Your task to perform on an android device: check out phone information Image 0: 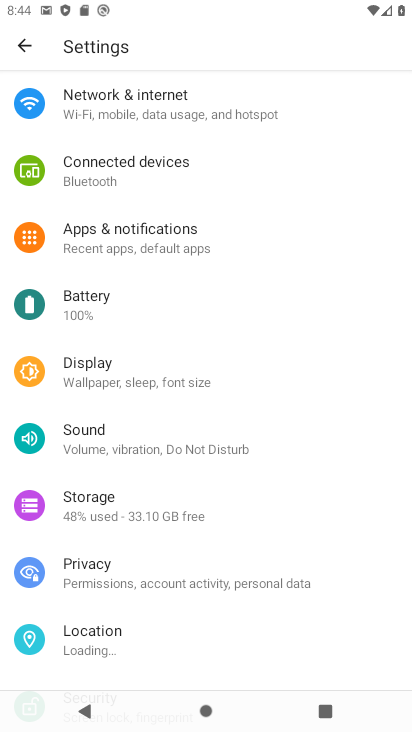
Step 0: press home button
Your task to perform on an android device: check out phone information Image 1: 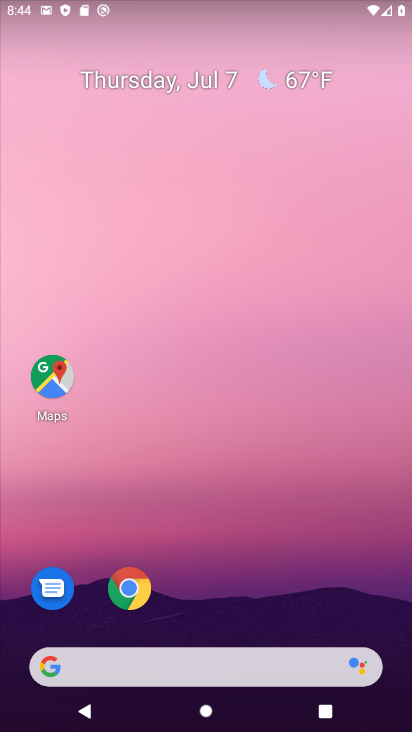
Step 1: drag from (249, 585) to (216, 35)
Your task to perform on an android device: check out phone information Image 2: 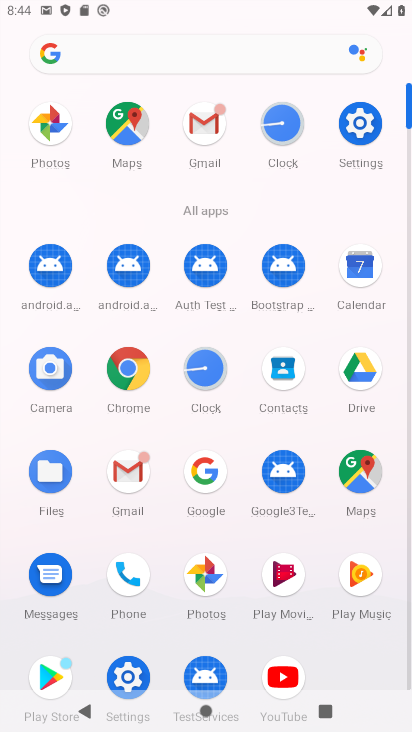
Step 2: click (361, 123)
Your task to perform on an android device: check out phone information Image 3: 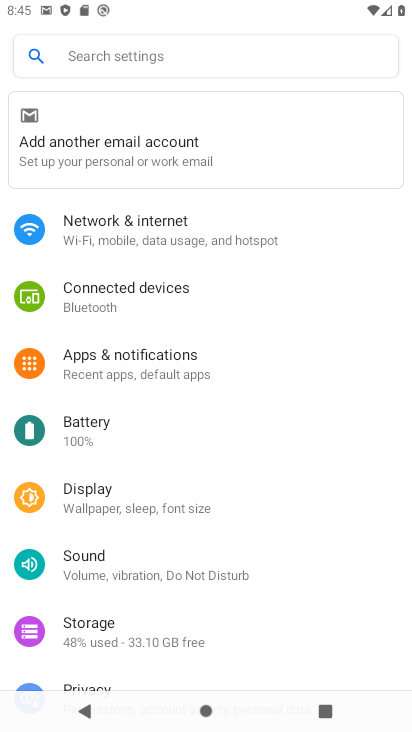
Step 3: drag from (136, 478) to (188, 390)
Your task to perform on an android device: check out phone information Image 4: 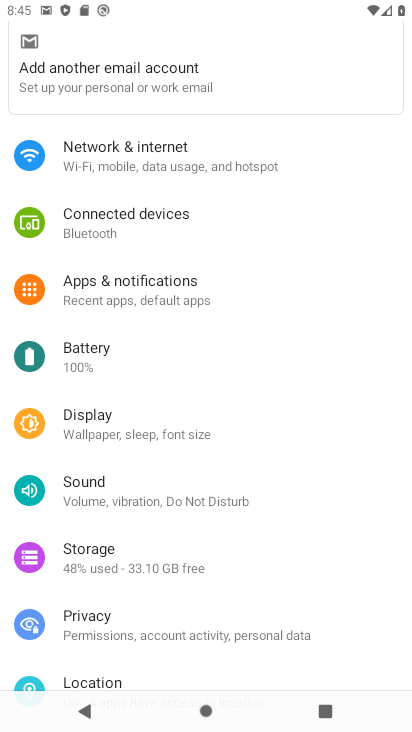
Step 4: drag from (152, 543) to (238, 429)
Your task to perform on an android device: check out phone information Image 5: 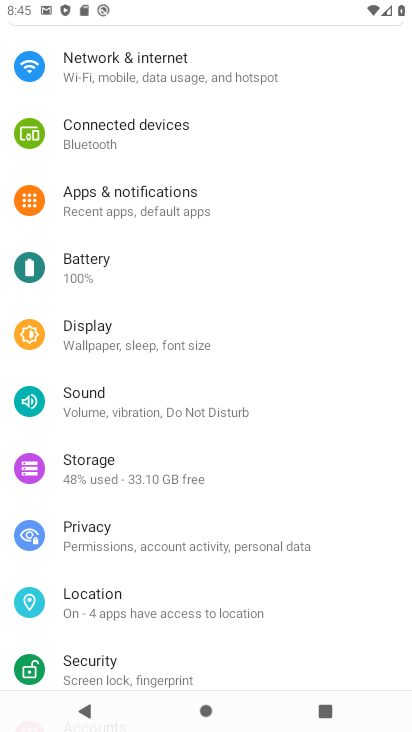
Step 5: drag from (180, 581) to (209, 483)
Your task to perform on an android device: check out phone information Image 6: 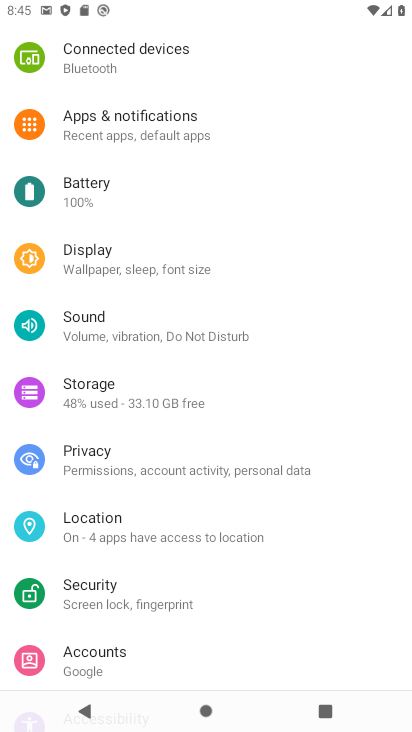
Step 6: drag from (119, 628) to (192, 525)
Your task to perform on an android device: check out phone information Image 7: 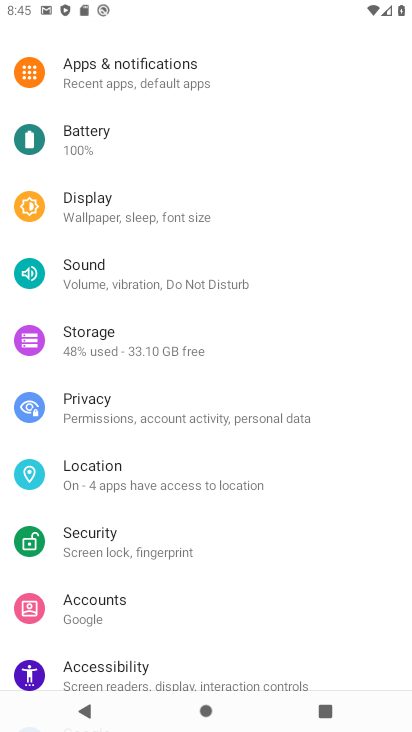
Step 7: drag from (114, 633) to (212, 488)
Your task to perform on an android device: check out phone information Image 8: 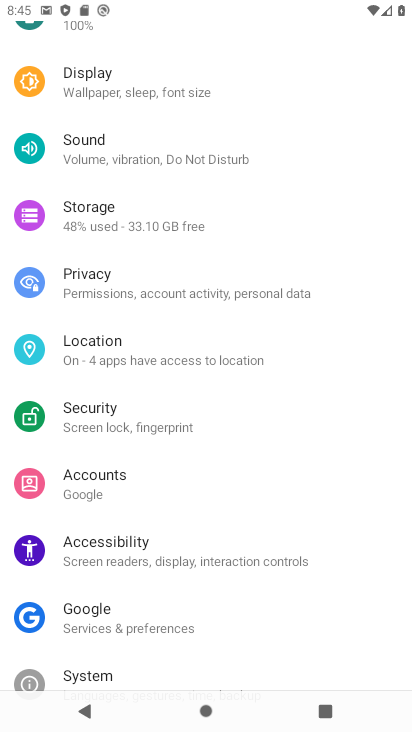
Step 8: drag from (135, 600) to (228, 436)
Your task to perform on an android device: check out phone information Image 9: 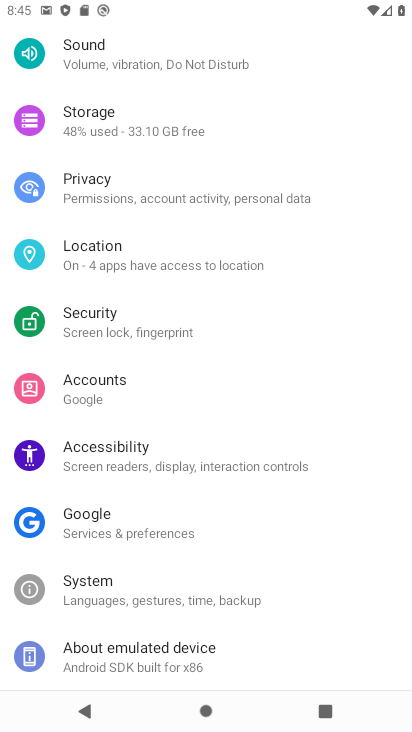
Step 9: click (121, 646)
Your task to perform on an android device: check out phone information Image 10: 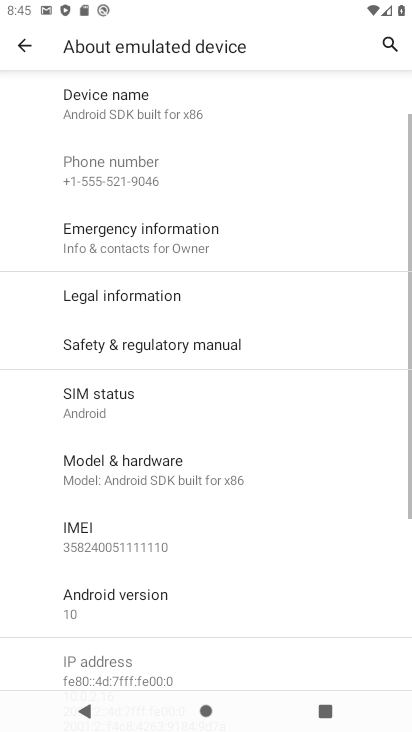
Step 10: task complete